Your task to perform on an android device: Search for seafood restaurants on Google Maps Image 0: 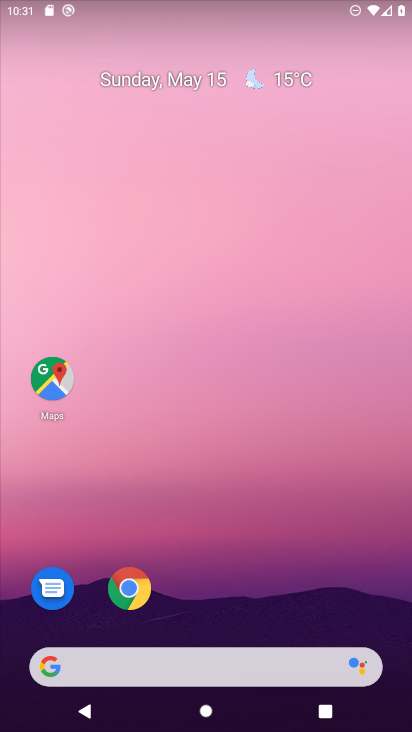
Step 0: click (63, 383)
Your task to perform on an android device: Search for seafood restaurants on Google Maps Image 1: 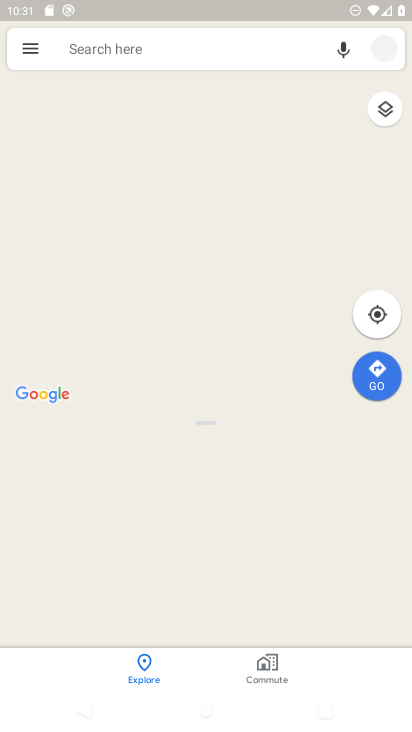
Step 1: click (158, 54)
Your task to perform on an android device: Search for seafood restaurants on Google Maps Image 2: 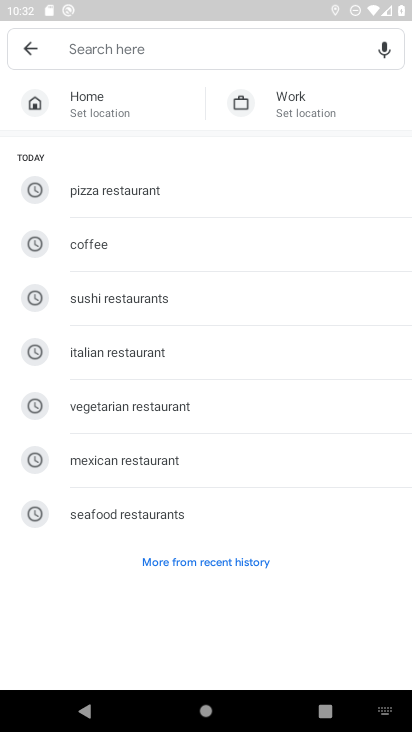
Step 2: type "seafood restaurants"
Your task to perform on an android device: Search for seafood restaurants on Google Maps Image 3: 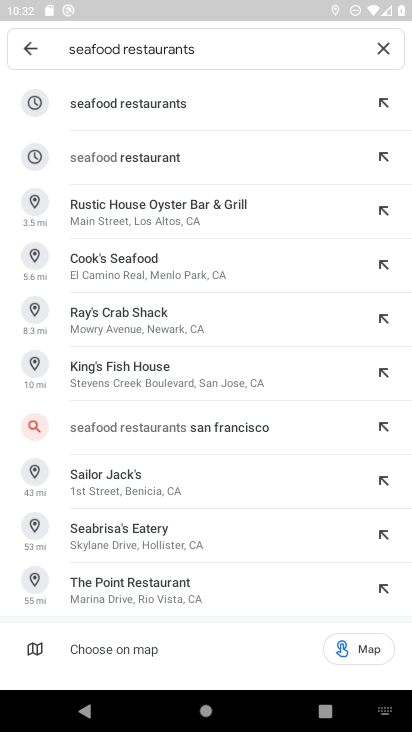
Step 3: click (176, 103)
Your task to perform on an android device: Search for seafood restaurants on Google Maps Image 4: 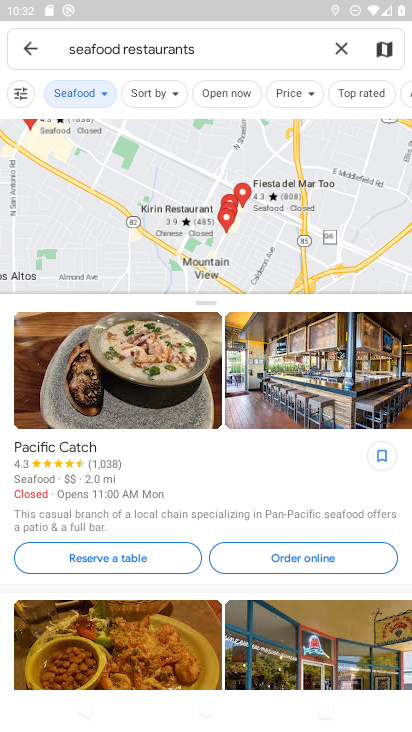
Step 4: task complete